Your task to perform on an android device: turn off notifications settings in the gmail app Image 0: 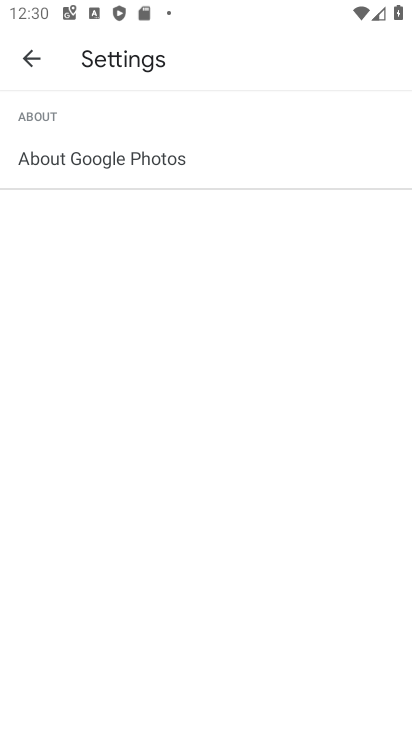
Step 0: click (33, 50)
Your task to perform on an android device: turn off notifications settings in the gmail app Image 1: 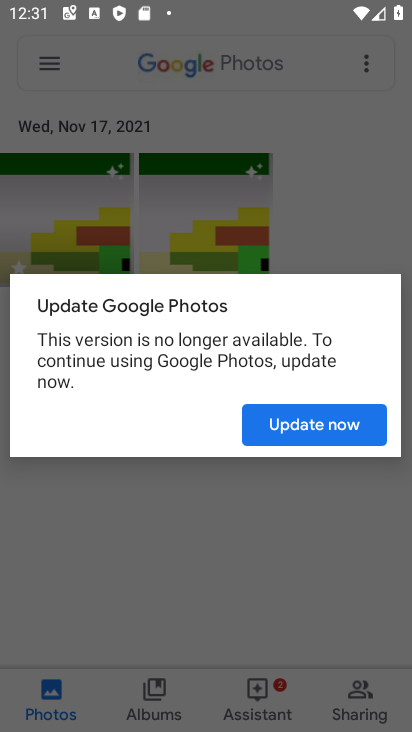
Step 1: press home button
Your task to perform on an android device: turn off notifications settings in the gmail app Image 2: 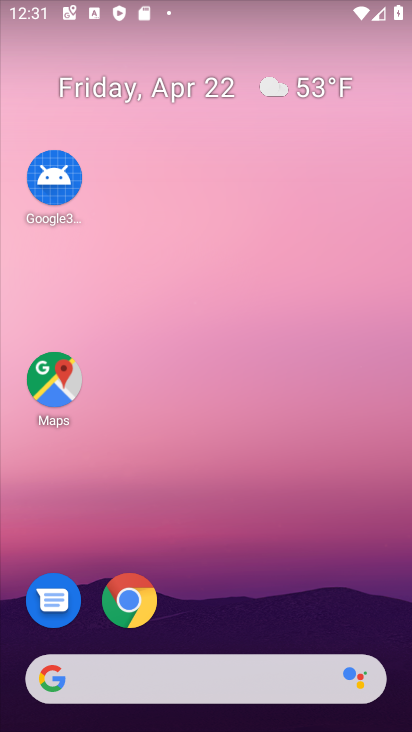
Step 2: drag from (215, 584) to (175, 13)
Your task to perform on an android device: turn off notifications settings in the gmail app Image 3: 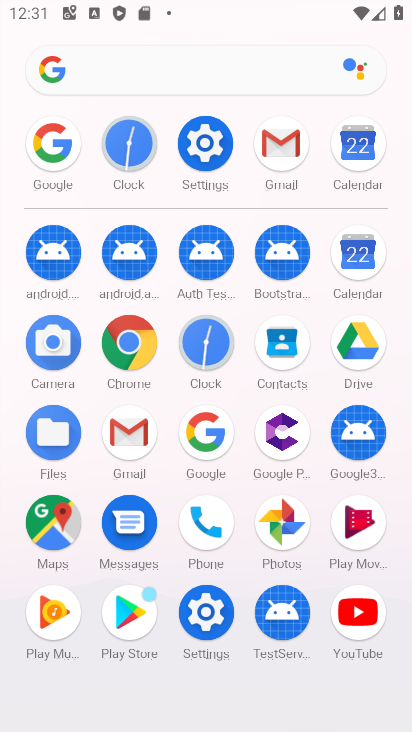
Step 3: click (273, 136)
Your task to perform on an android device: turn off notifications settings in the gmail app Image 4: 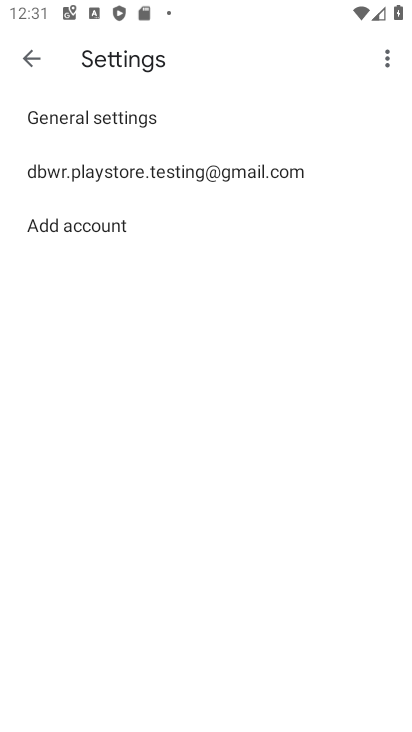
Step 4: click (250, 171)
Your task to perform on an android device: turn off notifications settings in the gmail app Image 5: 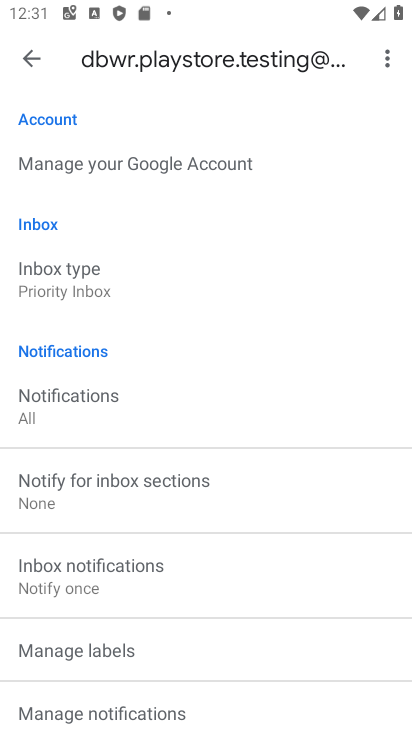
Step 5: click (132, 701)
Your task to perform on an android device: turn off notifications settings in the gmail app Image 6: 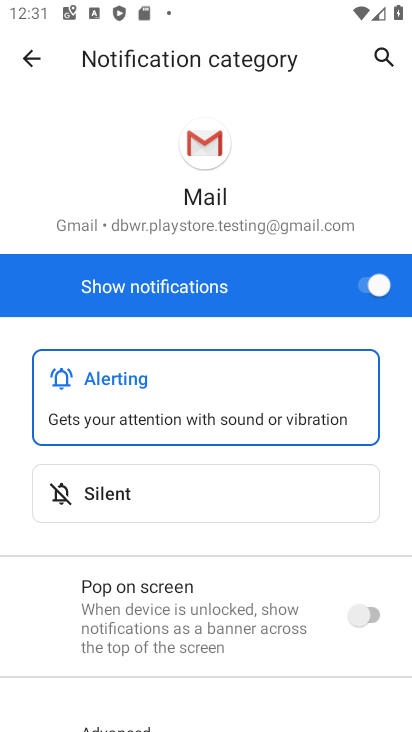
Step 6: click (371, 276)
Your task to perform on an android device: turn off notifications settings in the gmail app Image 7: 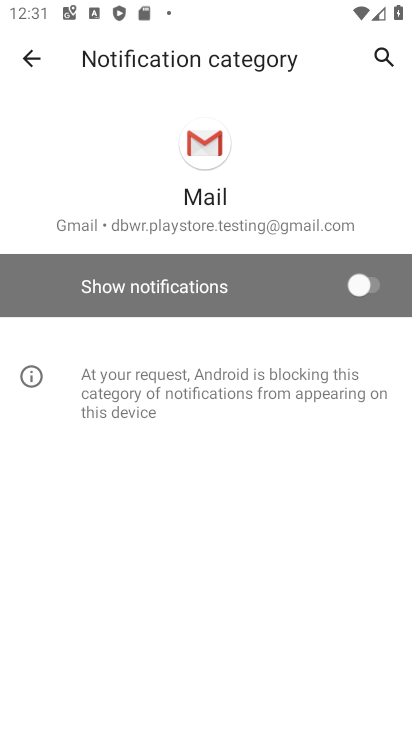
Step 7: task complete